Your task to perform on an android device: Open Yahoo.com Image 0: 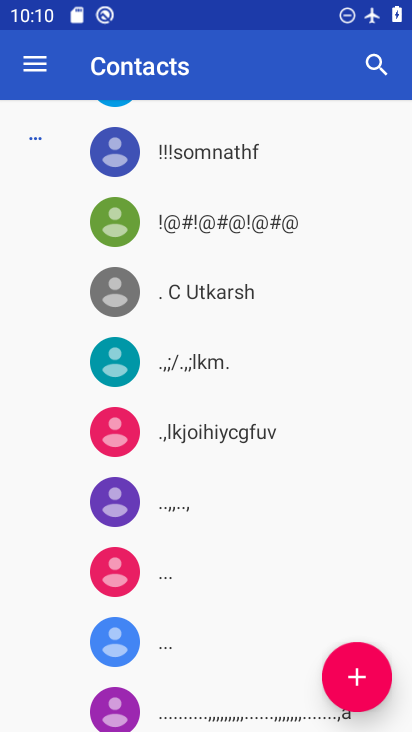
Step 0: press home button
Your task to perform on an android device: Open Yahoo.com Image 1: 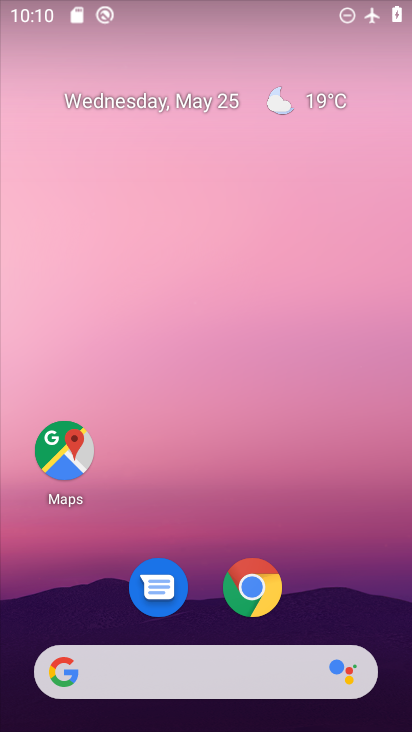
Step 1: click (253, 596)
Your task to perform on an android device: Open Yahoo.com Image 2: 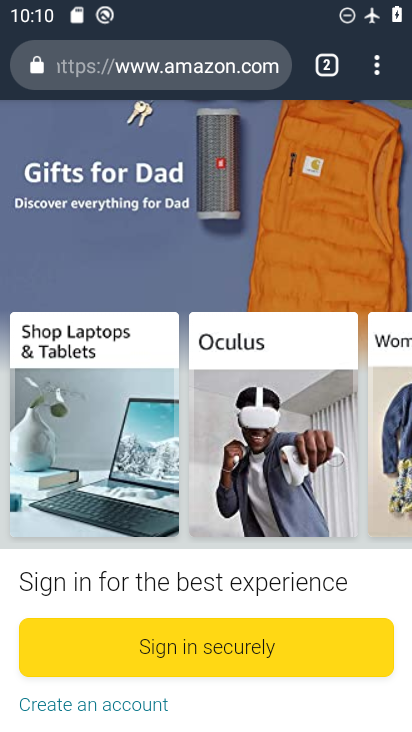
Step 2: click (277, 68)
Your task to perform on an android device: Open Yahoo.com Image 3: 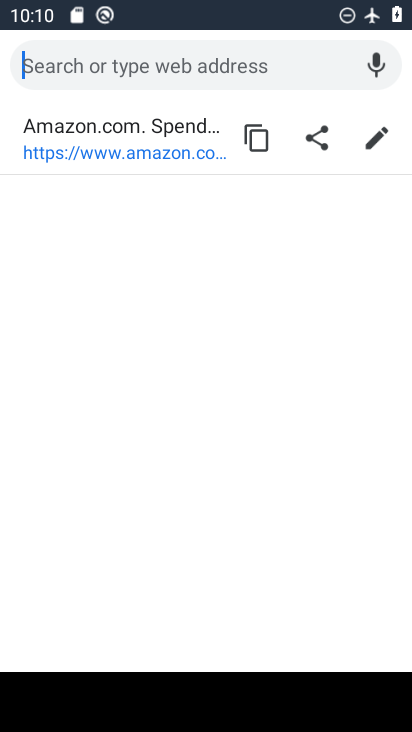
Step 3: type "yahoo.com"
Your task to perform on an android device: Open Yahoo.com Image 4: 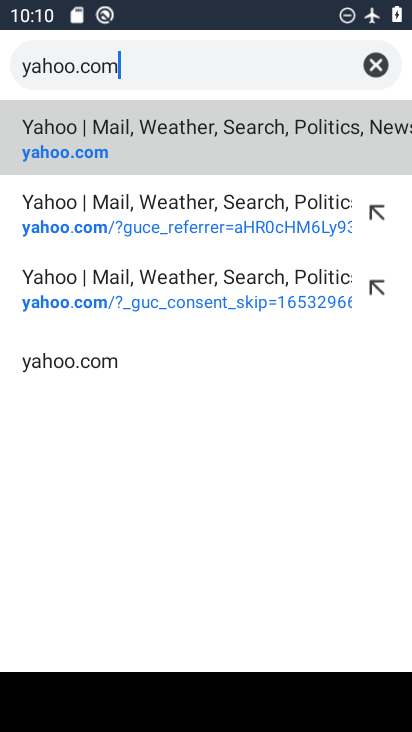
Step 4: click (58, 123)
Your task to perform on an android device: Open Yahoo.com Image 5: 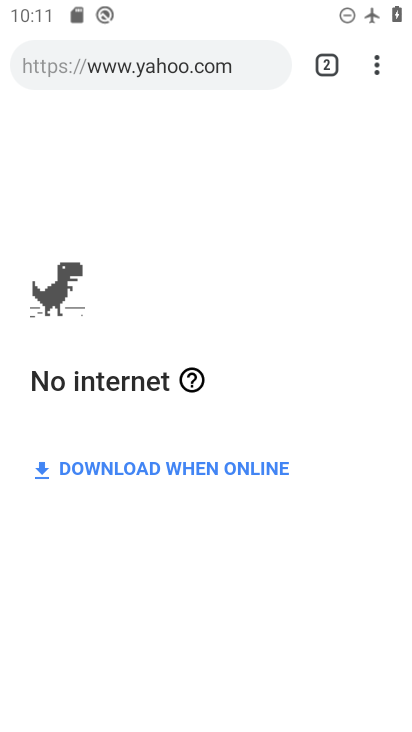
Step 5: task complete